Your task to perform on an android device: How big is a dinosaur? Image 0: 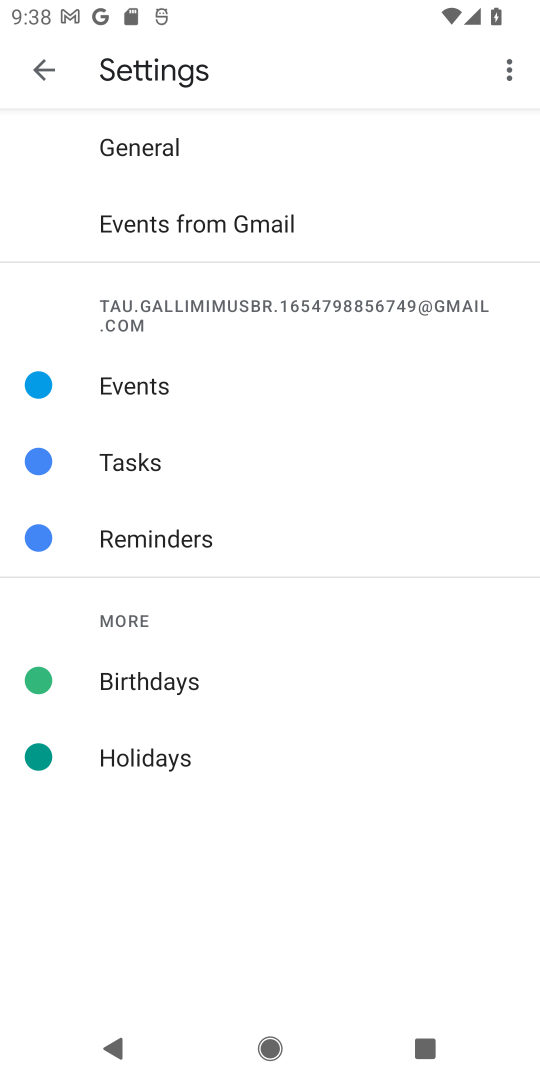
Step 0: press home button
Your task to perform on an android device: How big is a dinosaur? Image 1: 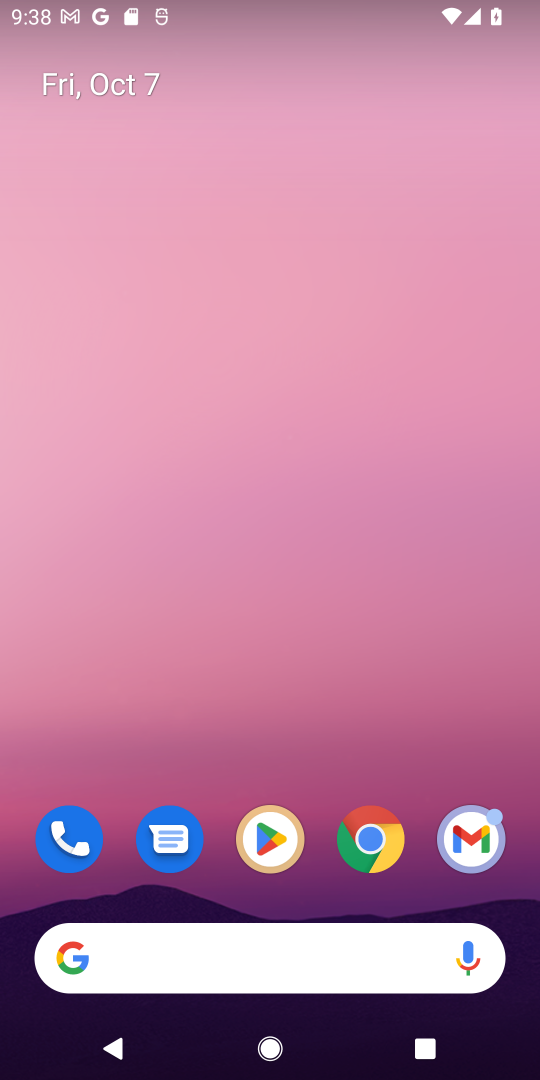
Step 1: click (363, 838)
Your task to perform on an android device: How big is a dinosaur? Image 2: 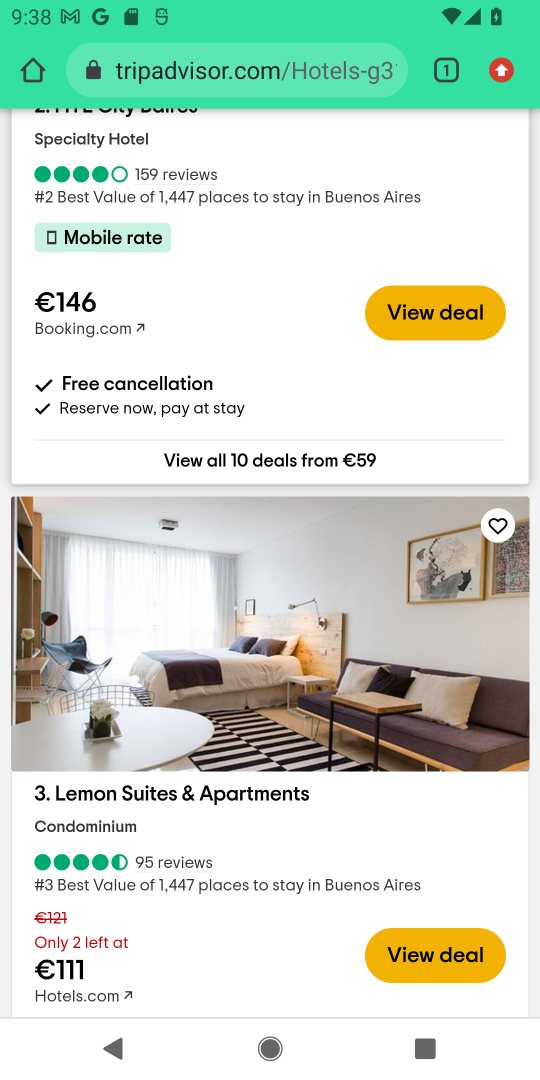
Step 2: click (281, 62)
Your task to perform on an android device: How big is a dinosaur? Image 3: 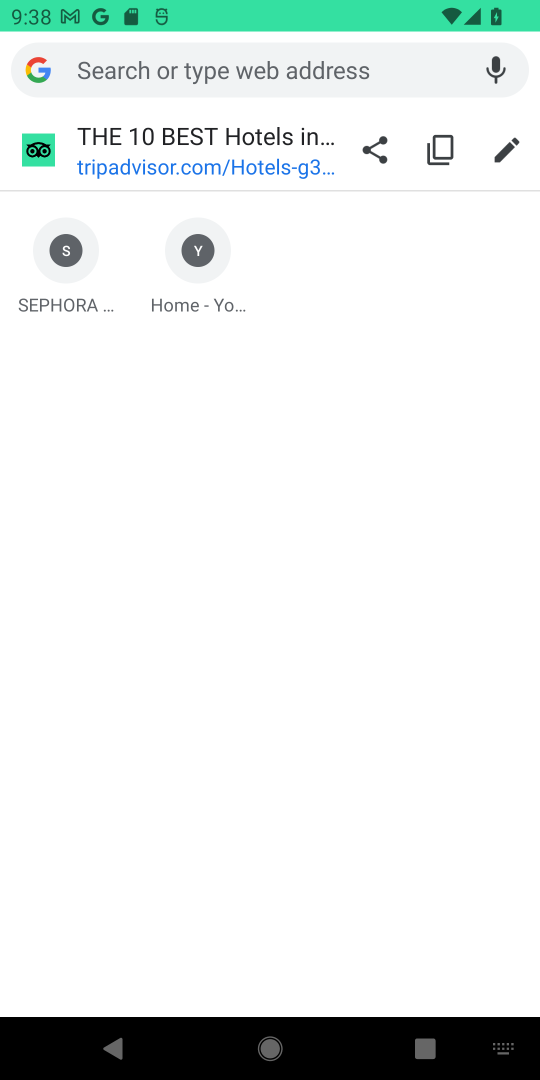
Step 3: type "how big is a dinosaur"
Your task to perform on an android device: How big is a dinosaur? Image 4: 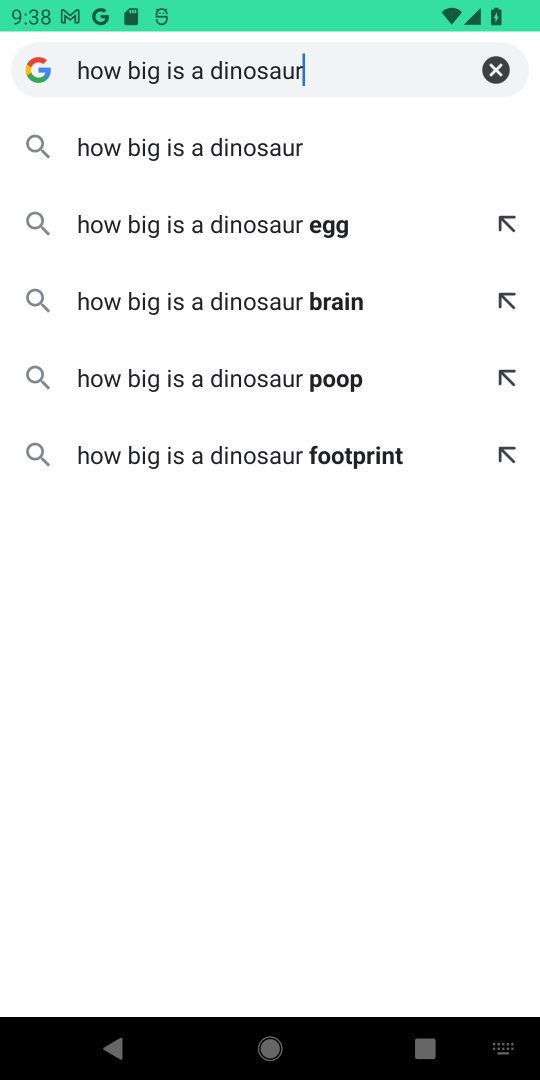
Step 4: click (235, 144)
Your task to perform on an android device: How big is a dinosaur? Image 5: 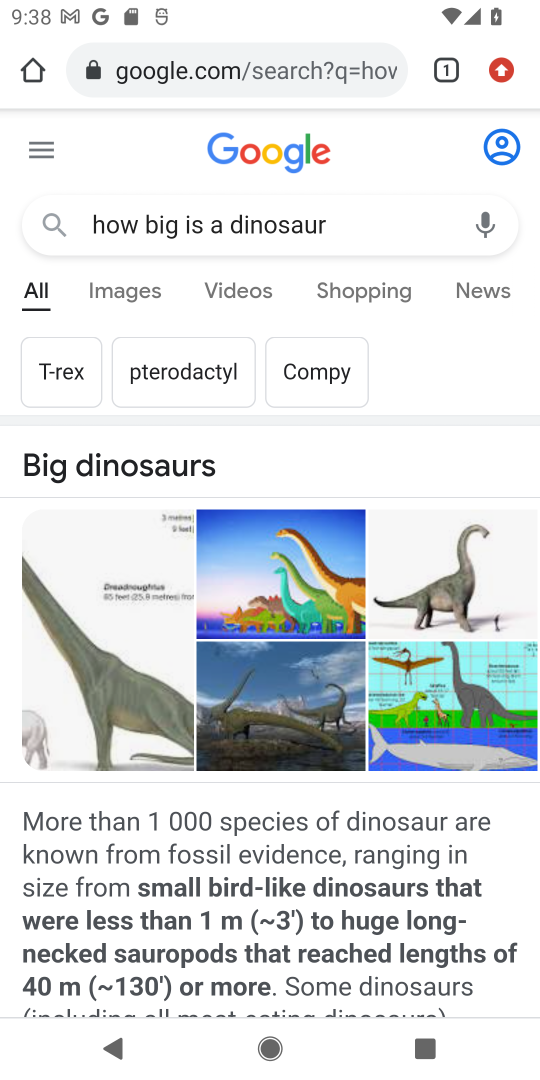
Step 5: click (70, 633)
Your task to perform on an android device: How big is a dinosaur? Image 6: 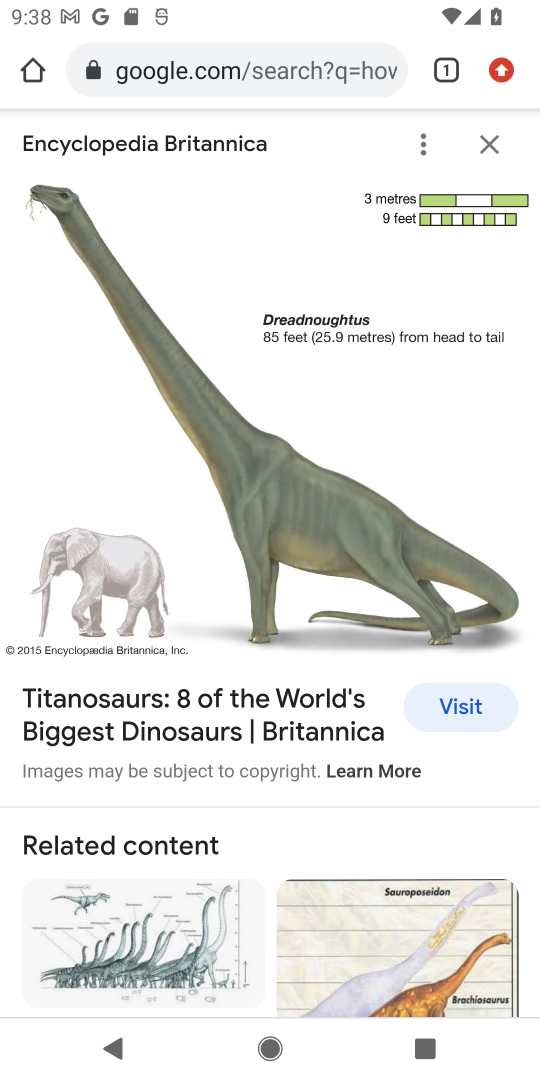
Step 6: task complete